Your task to perform on an android device: Open Google Chrome Image 0: 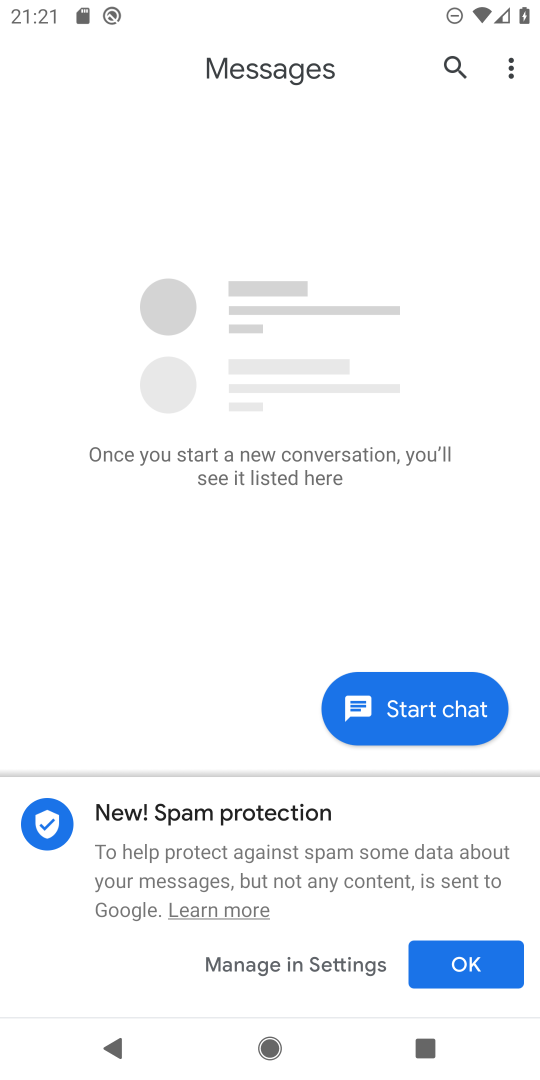
Step 0: press home button
Your task to perform on an android device: Open Google Chrome Image 1: 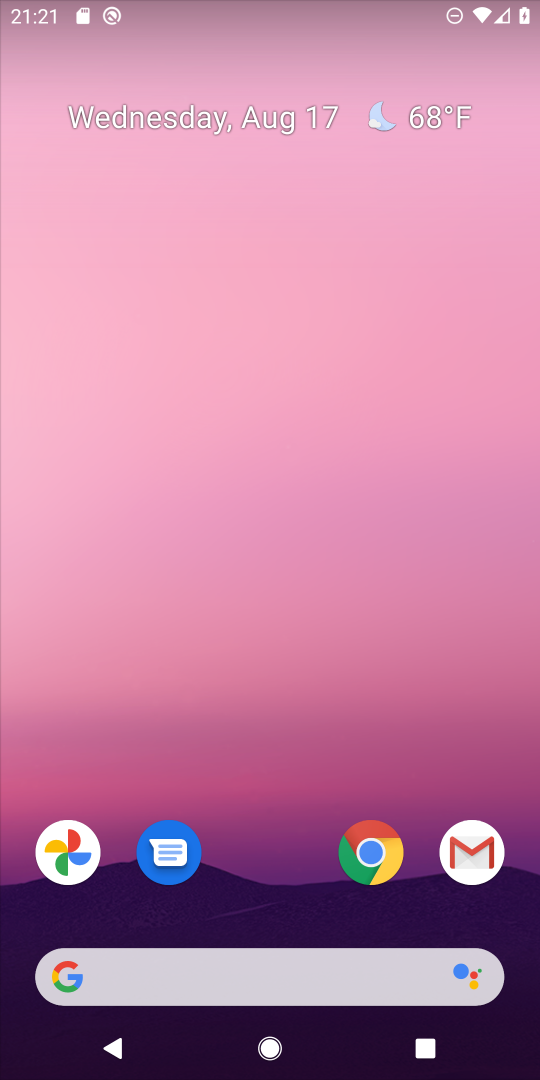
Step 1: click (374, 846)
Your task to perform on an android device: Open Google Chrome Image 2: 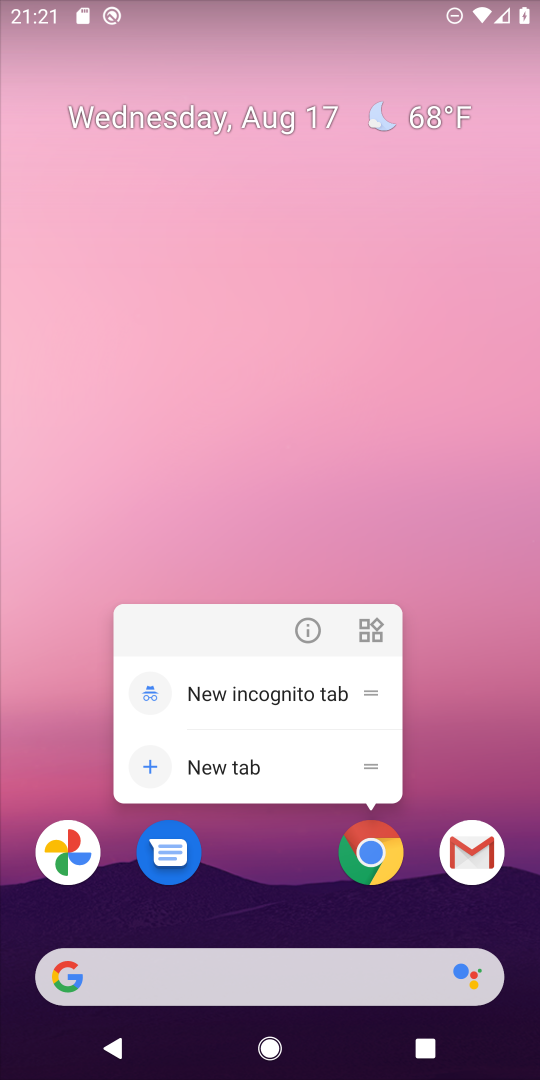
Step 2: click (370, 866)
Your task to perform on an android device: Open Google Chrome Image 3: 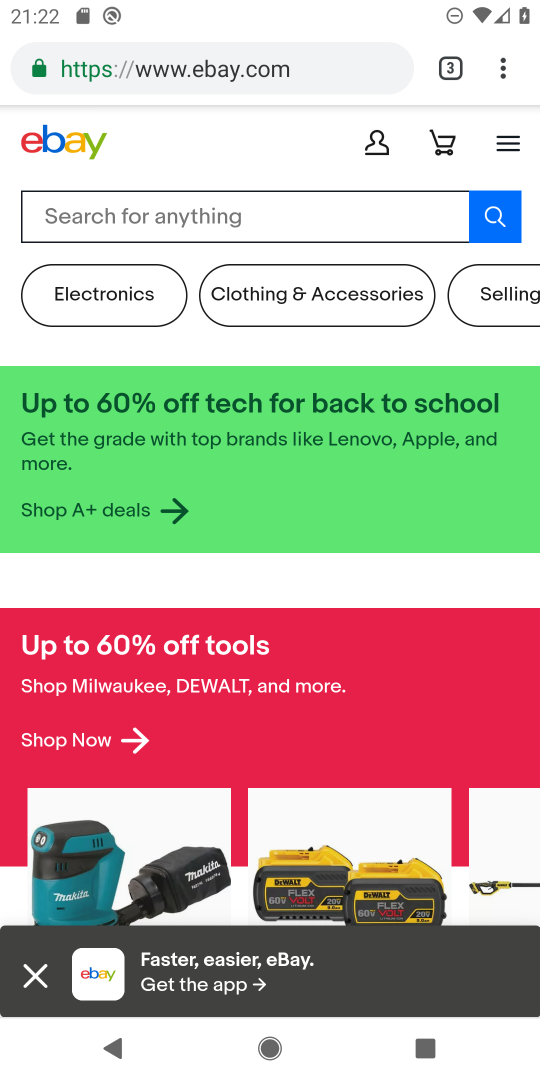
Step 3: task complete